Your task to perform on an android device: Search for sushi restaurants on Maps Image 0: 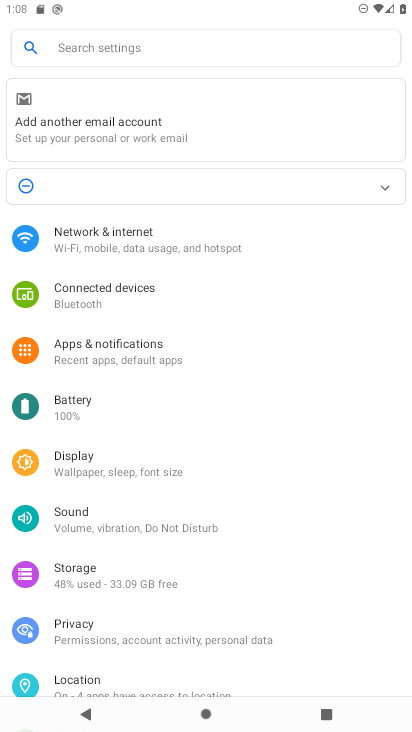
Step 0: press home button
Your task to perform on an android device: Search for sushi restaurants on Maps Image 1: 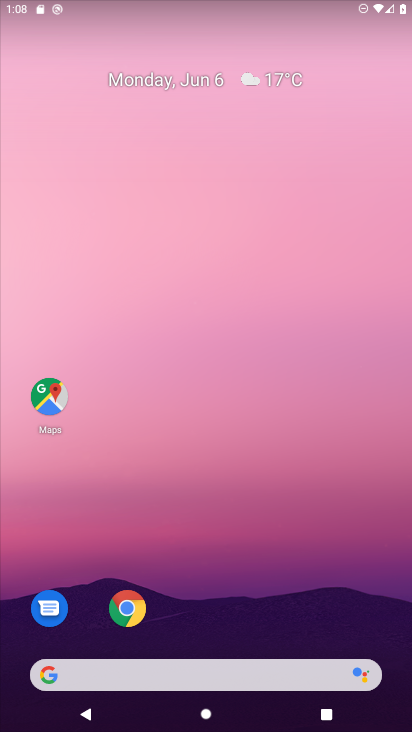
Step 1: click (56, 393)
Your task to perform on an android device: Search for sushi restaurants on Maps Image 2: 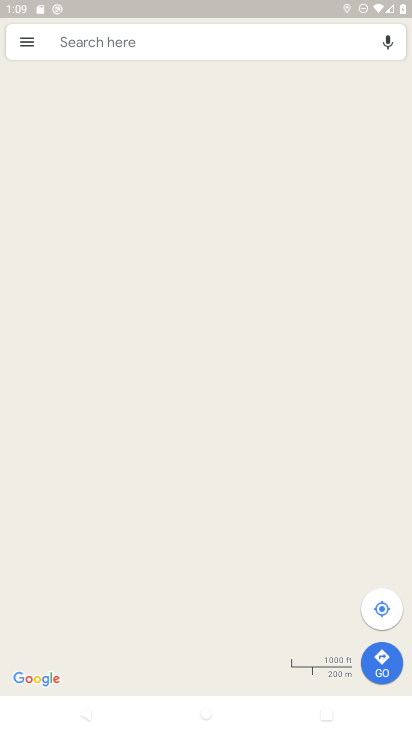
Step 2: click (180, 28)
Your task to perform on an android device: Search for sushi restaurants on Maps Image 3: 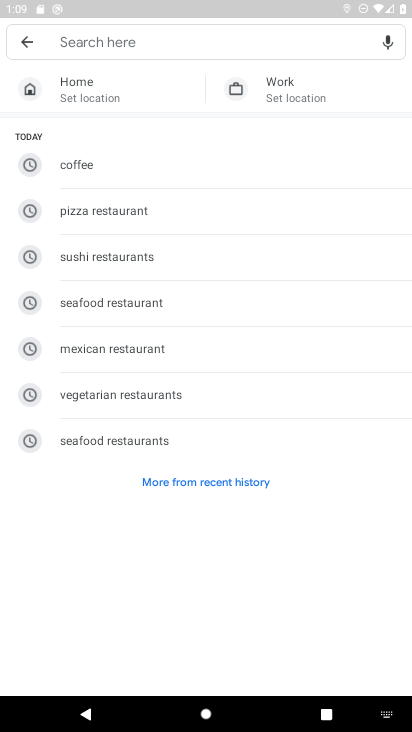
Step 3: type "Sushi restaur"
Your task to perform on an android device: Search for sushi restaurants on Maps Image 4: 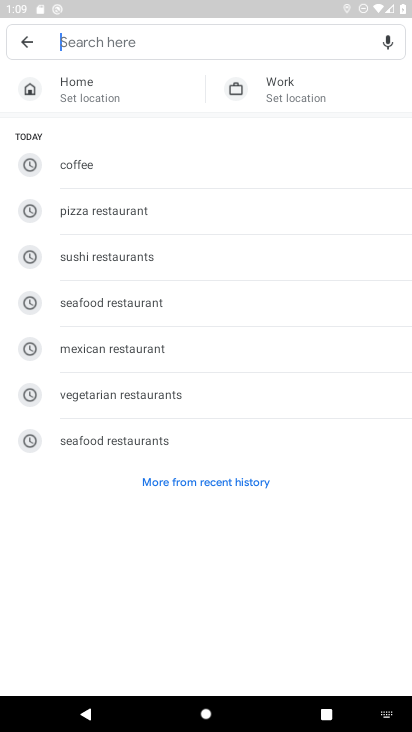
Step 4: click (223, 265)
Your task to perform on an android device: Search for sushi restaurants on Maps Image 5: 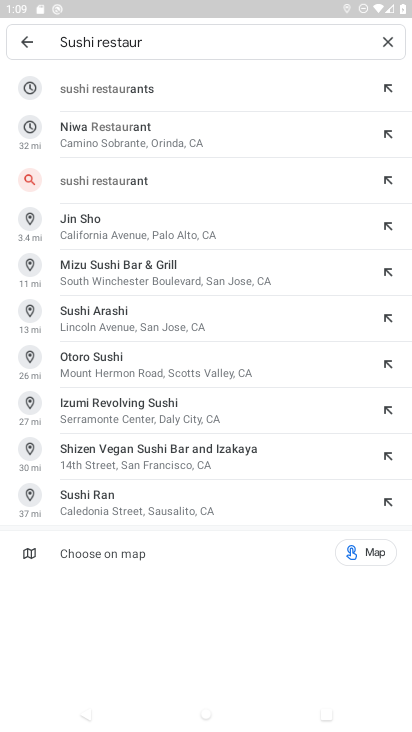
Step 5: click (213, 87)
Your task to perform on an android device: Search for sushi restaurants on Maps Image 6: 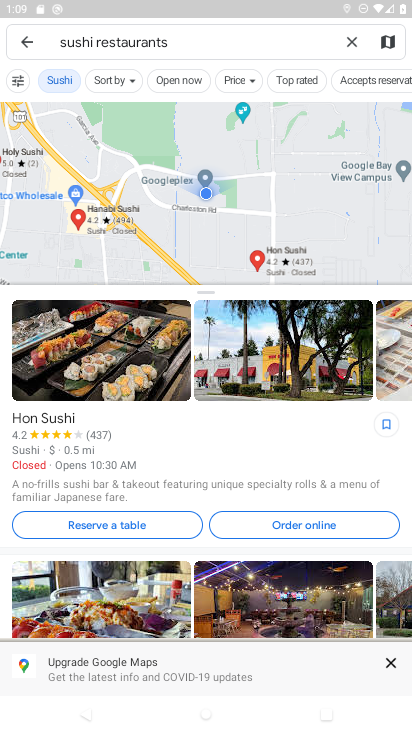
Step 6: task complete